Your task to perform on an android device: delete browsing data in the chrome app Image 0: 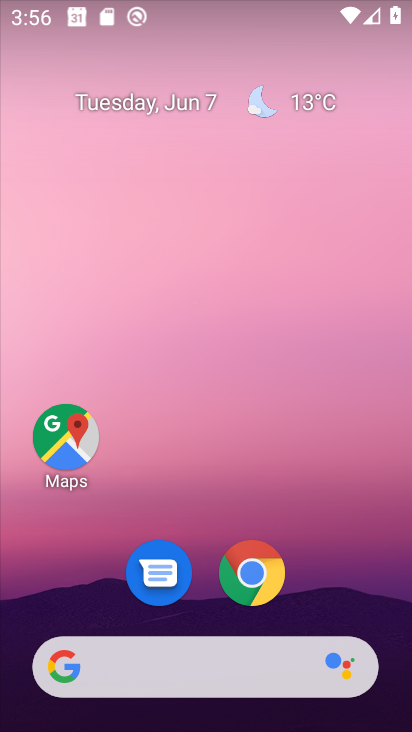
Step 0: press home button
Your task to perform on an android device: delete browsing data in the chrome app Image 1: 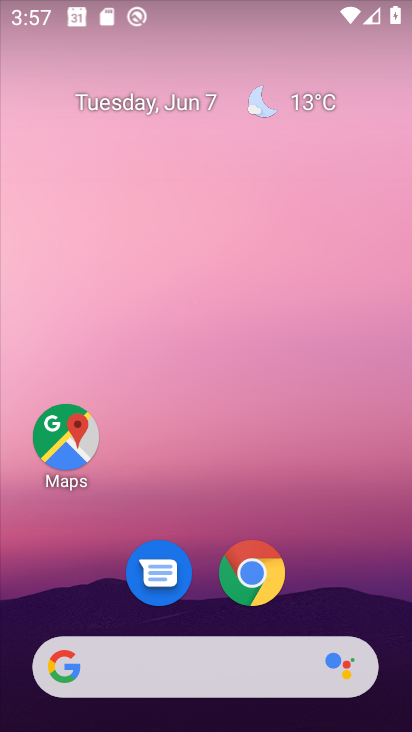
Step 1: drag from (400, 705) to (241, 132)
Your task to perform on an android device: delete browsing data in the chrome app Image 2: 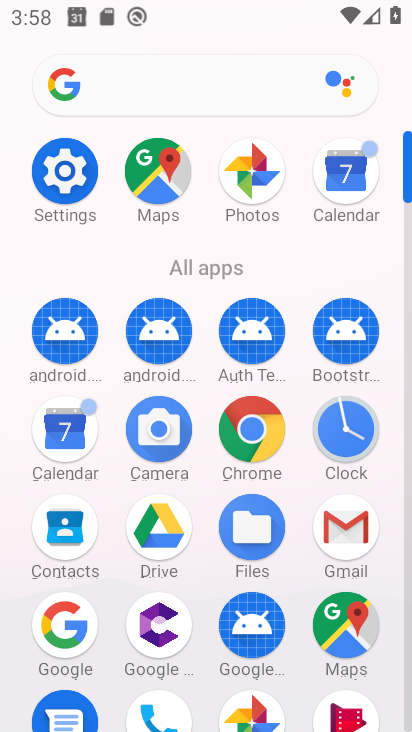
Step 2: click (258, 434)
Your task to perform on an android device: delete browsing data in the chrome app Image 3: 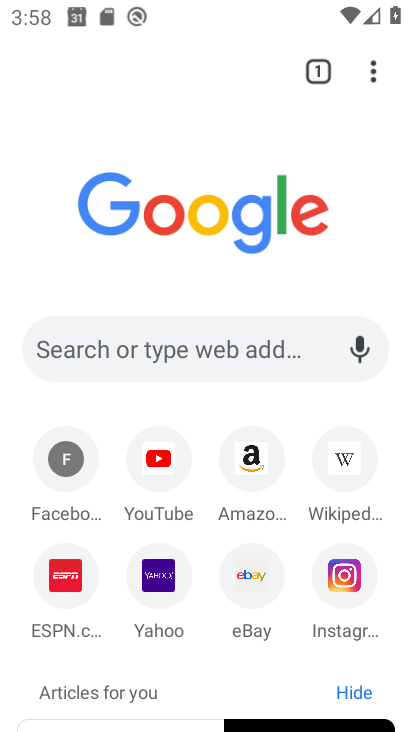
Step 3: drag from (372, 60) to (129, 591)
Your task to perform on an android device: delete browsing data in the chrome app Image 4: 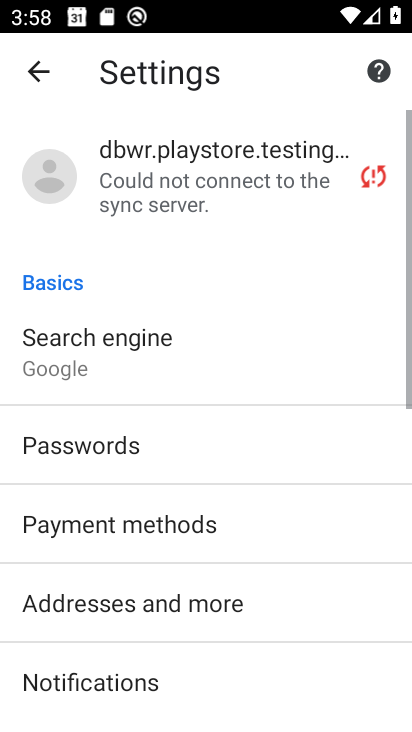
Step 4: drag from (129, 588) to (145, 267)
Your task to perform on an android device: delete browsing data in the chrome app Image 5: 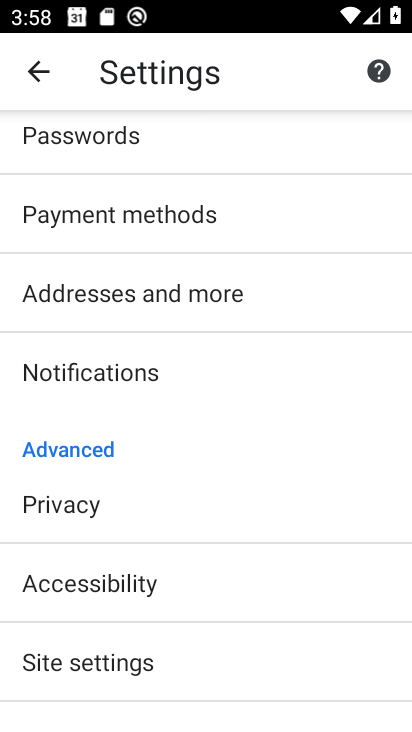
Step 5: click (76, 502)
Your task to perform on an android device: delete browsing data in the chrome app Image 6: 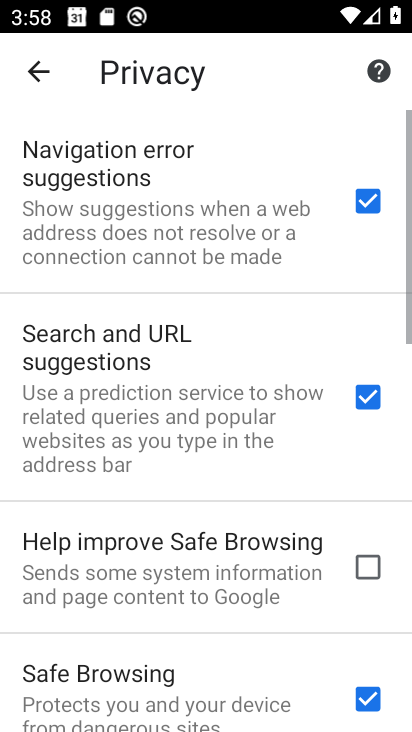
Step 6: drag from (270, 672) to (295, 124)
Your task to perform on an android device: delete browsing data in the chrome app Image 7: 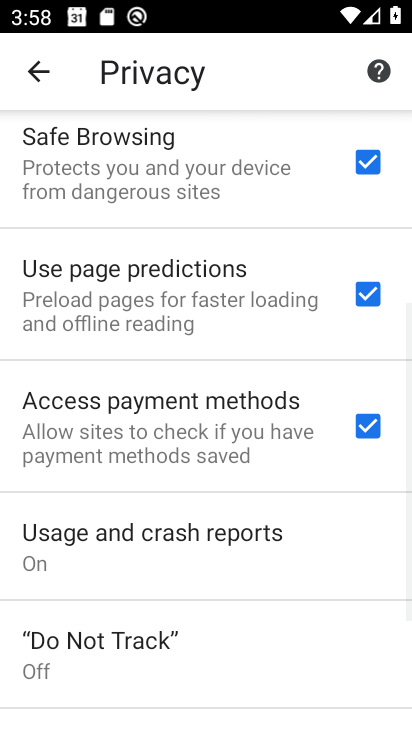
Step 7: drag from (182, 590) to (309, 122)
Your task to perform on an android device: delete browsing data in the chrome app Image 8: 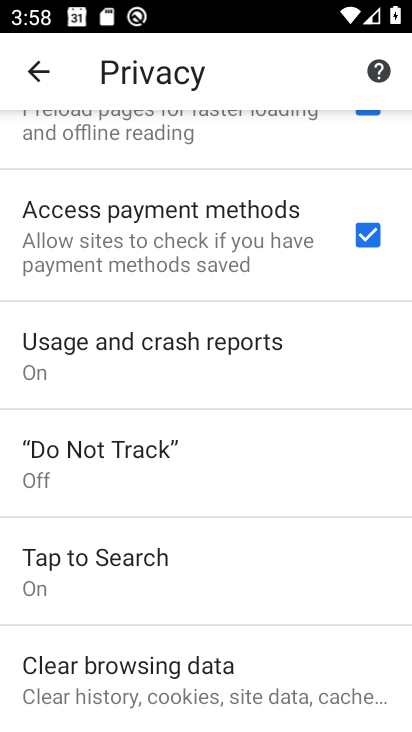
Step 8: click (242, 668)
Your task to perform on an android device: delete browsing data in the chrome app Image 9: 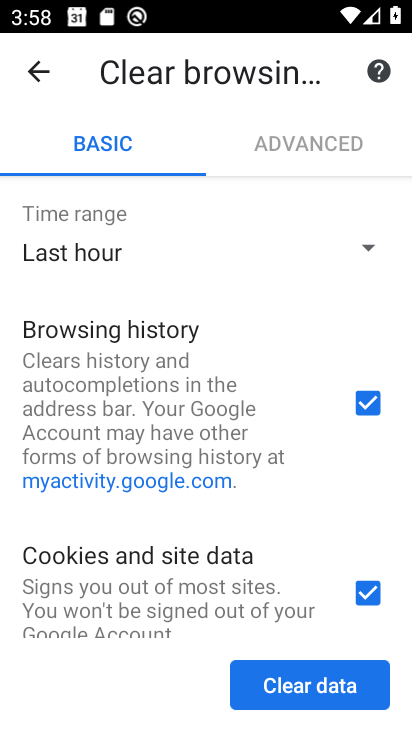
Step 9: click (295, 684)
Your task to perform on an android device: delete browsing data in the chrome app Image 10: 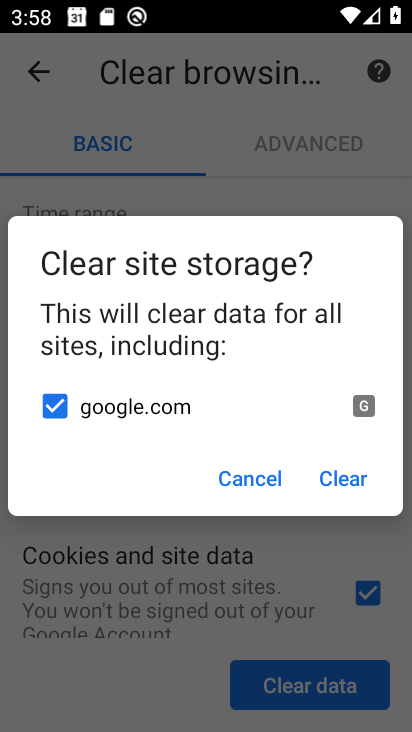
Step 10: click (334, 484)
Your task to perform on an android device: delete browsing data in the chrome app Image 11: 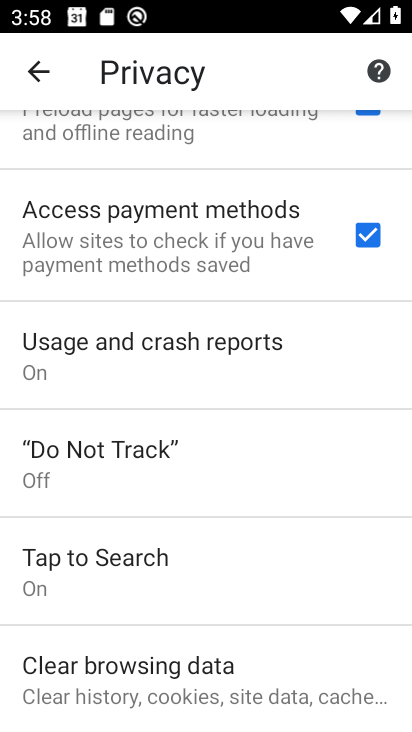
Step 11: task complete